Your task to perform on an android device: turn off location Image 0: 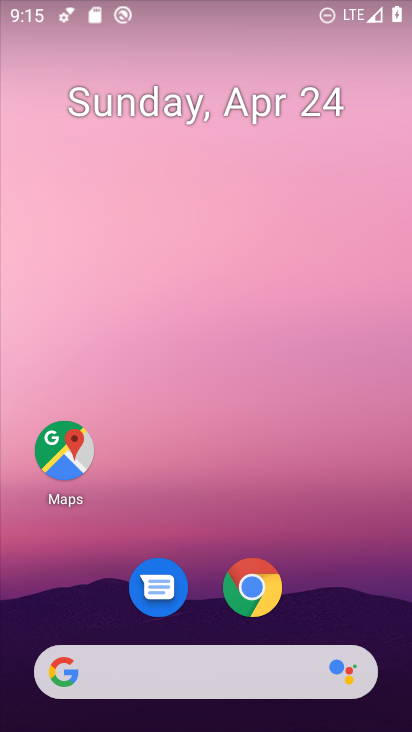
Step 0: drag from (350, 616) to (341, 175)
Your task to perform on an android device: turn off location Image 1: 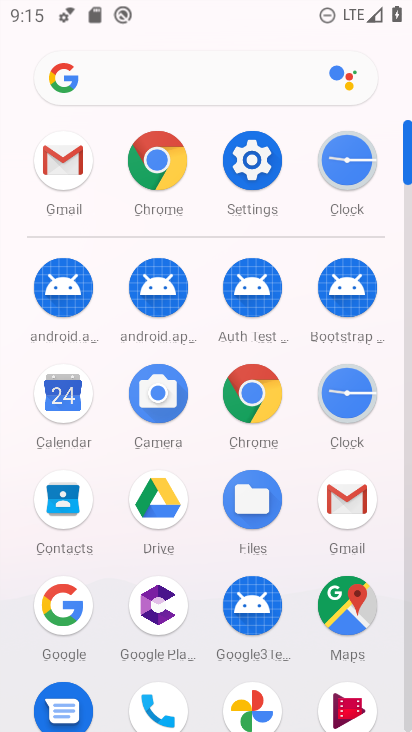
Step 1: click (251, 161)
Your task to perform on an android device: turn off location Image 2: 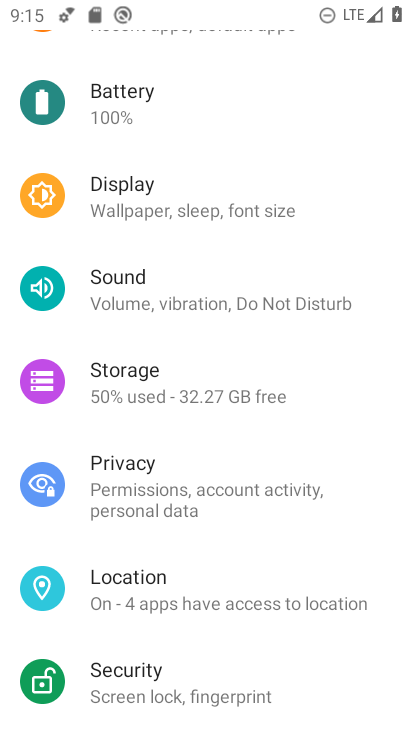
Step 2: click (212, 599)
Your task to perform on an android device: turn off location Image 3: 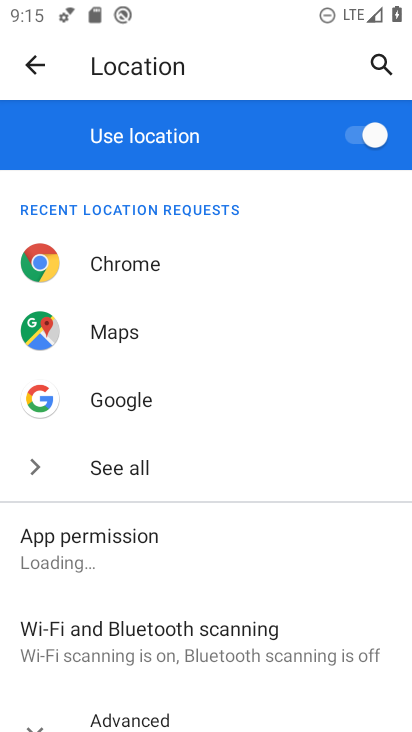
Step 3: click (357, 137)
Your task to perform on an android device: turn off location Image 4: 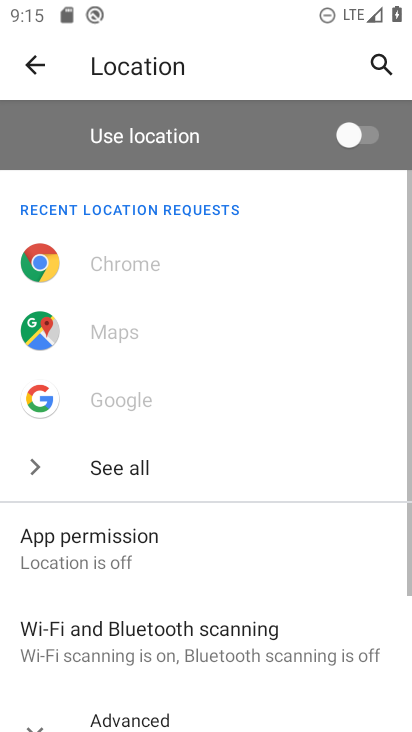
Step 4: task complete